Your task to perform on an android device: read, delete, or share a saved page in the chrome app Image 0: 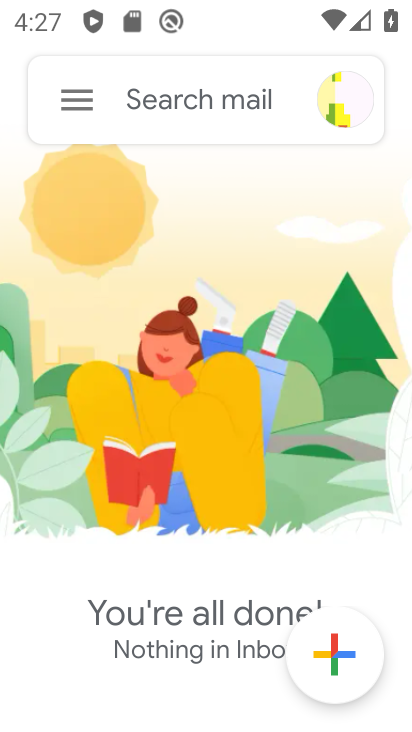
Step 0: press back button
Your task to perform on an android device: read, delete, or share a saved page in the chrome app Image 1: 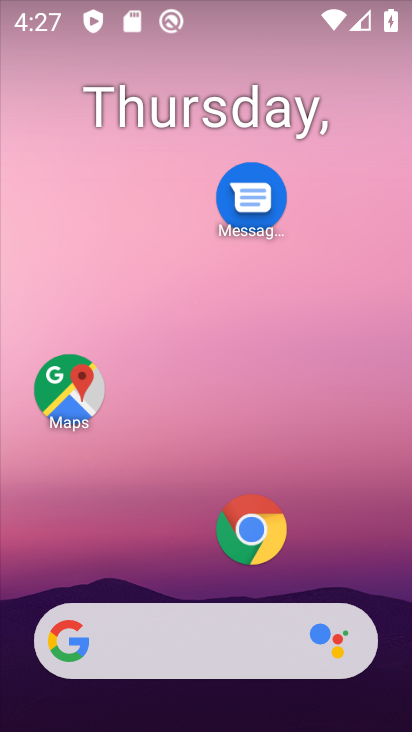
Step 1: click (244, 528)
Your task to perform on an android device: read, delete, or share a saved page in the chrome app Image 2: 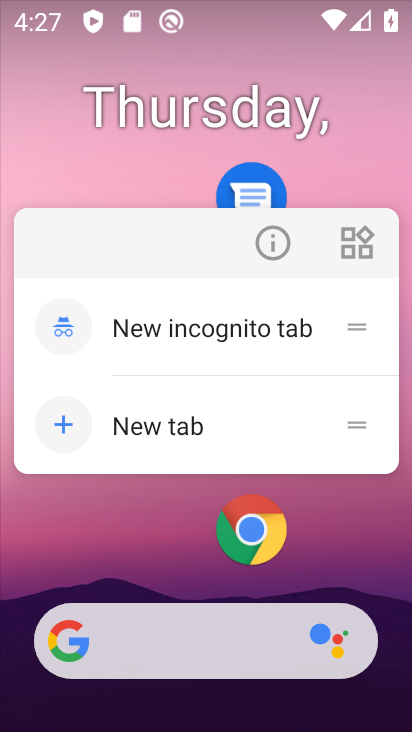
Step 2: click (253, 522)
Your task to perform on an android device: read, delete, or share a saved page in the chrome app Image 3: 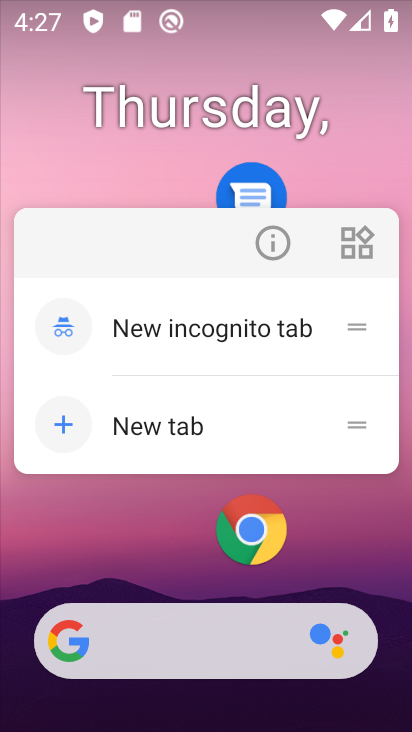
Step 3: click (252, 542)
Your task to perform on an android device: read, delete, or share a saved page in the chrome app Image 4: 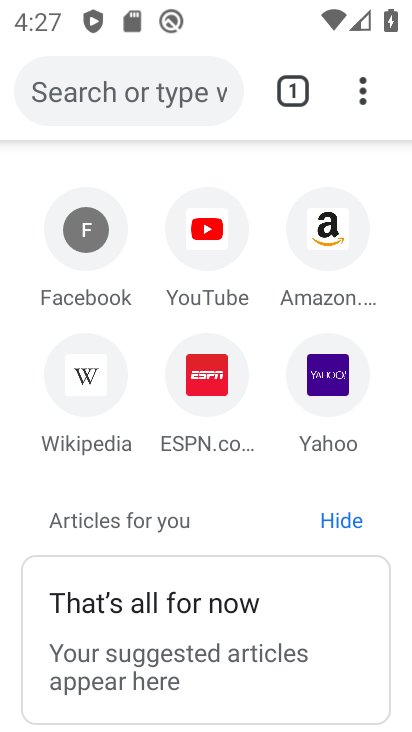
Step 4: drag from (358, 86) to (124, 580)
Your task to perform on an android device: read, delete, or share a saved page in the chrome app Image 5: 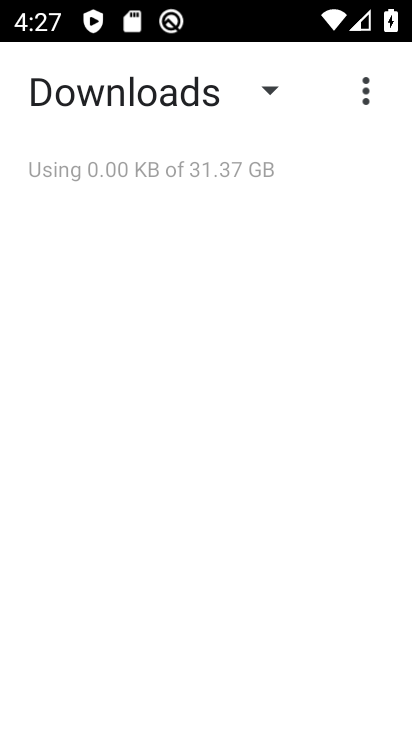
Step 5: click (271, 81)
Your task to perform on an android device: read, delete, or share a saved page in the chrome app Image 6: 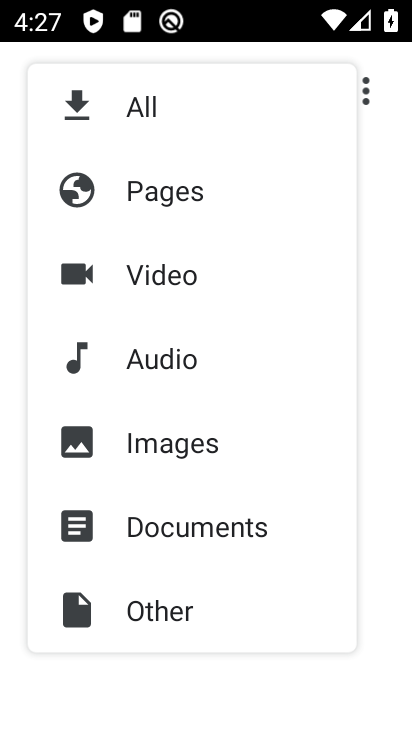
Step 6: click (166, 185)
Your task to perform on an android device: read, delete, or share a saved page in the chrome app Image 7: 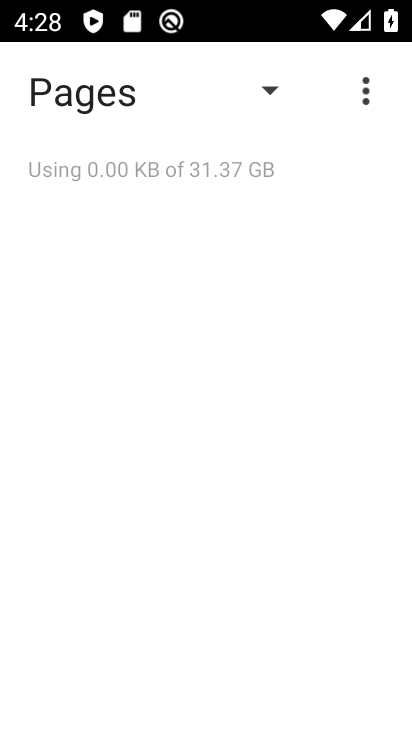
Step 7: task complete